Your task to perform on an android device: turn notification dots on Image 0: 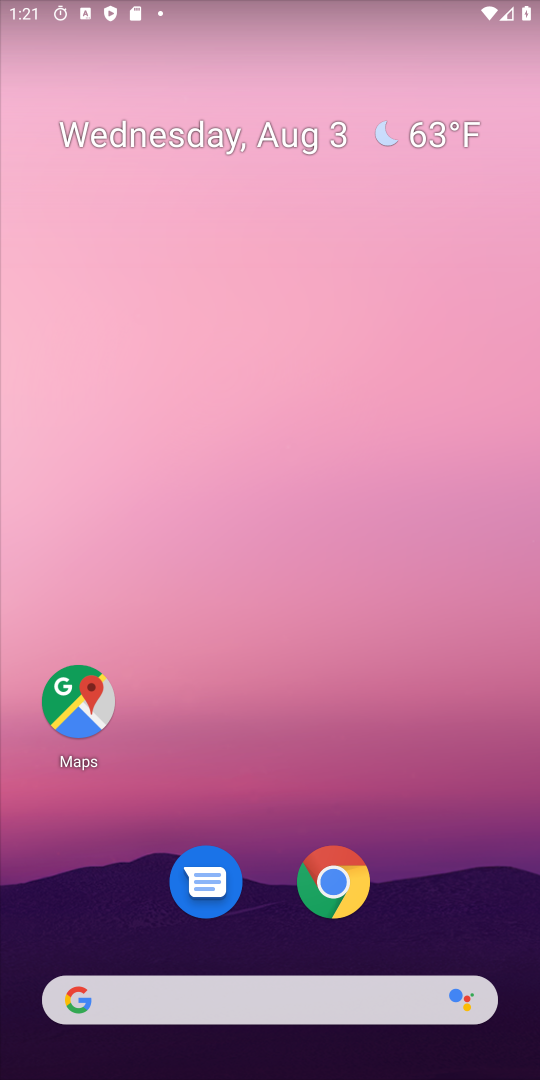
Step 0: drag from (316, 742) to (421, 34)
Your task to perform on an android device: turn notification dots on Image 1: 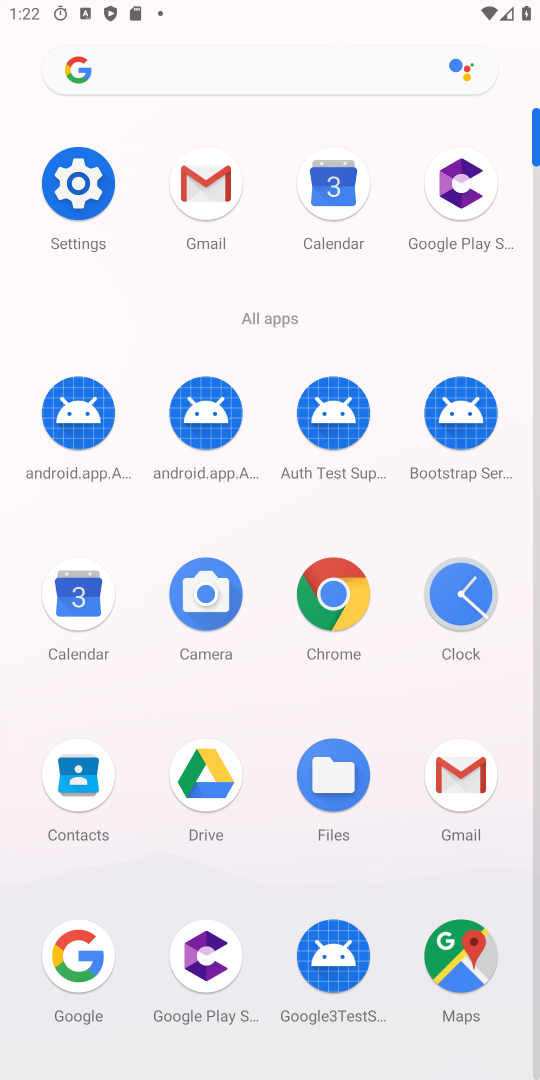
Step 1: click (80, 187)
Your task to perform on an android device: turn notification dots on Image 2: 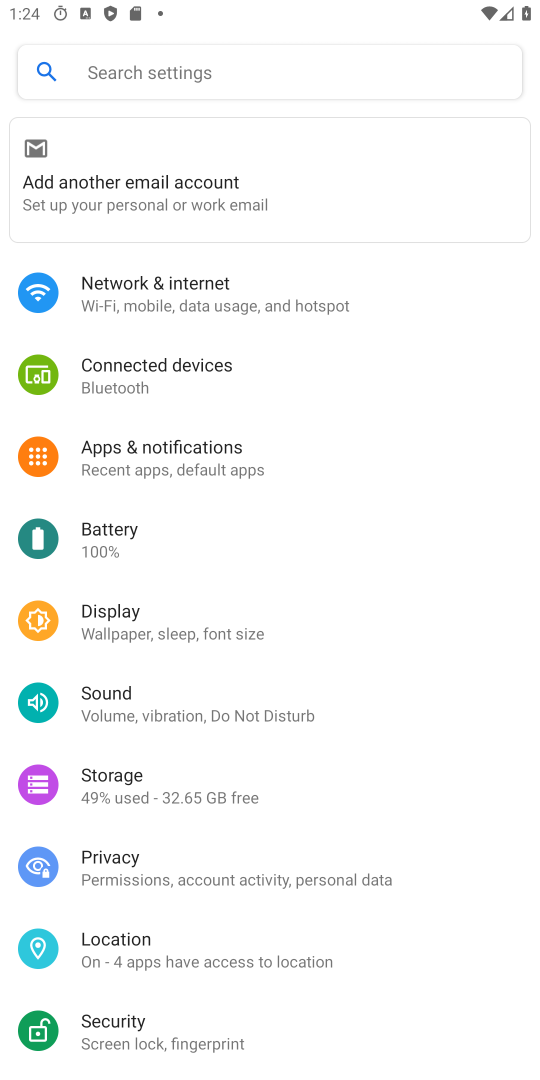
Step 2: click (216, 464)
Your task to perform on an android device: turn notification dots on Image 3: 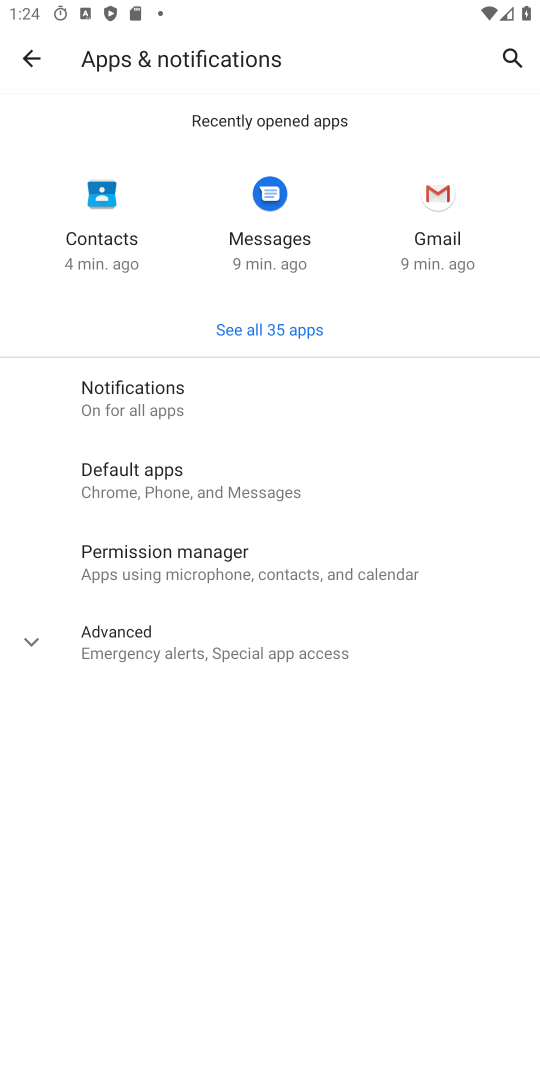
Step 3: click (292, 400)
Your task to perform on an android device: turn notification dots on Image 4: 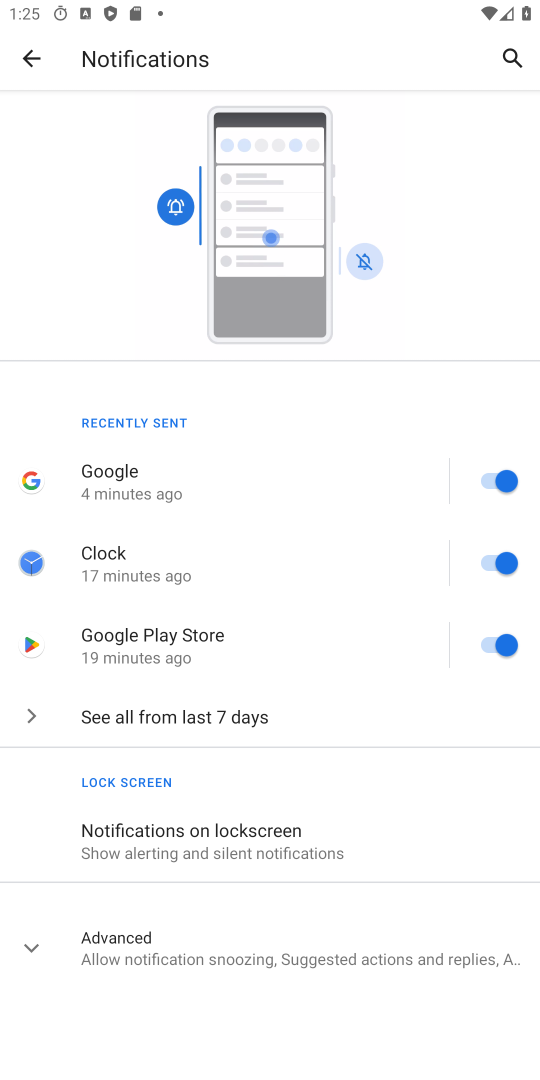
Step 4: click (237, 947)
Your task to perform on an android device: turn notification dots on Image 5: 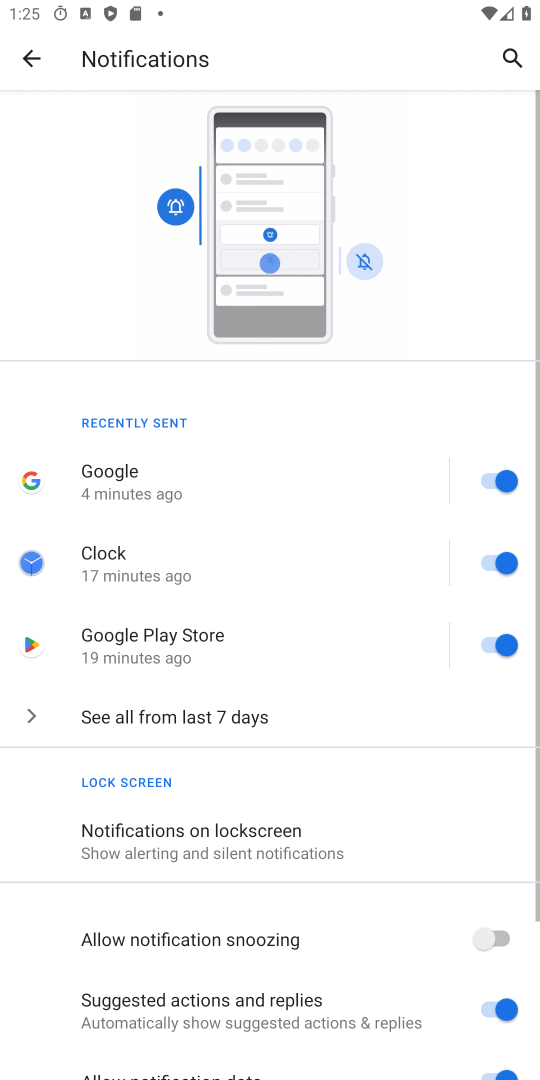
Step 5: task complete